Your task to perform on an android device: remove spam from my inbox in the gmail app Image 0: 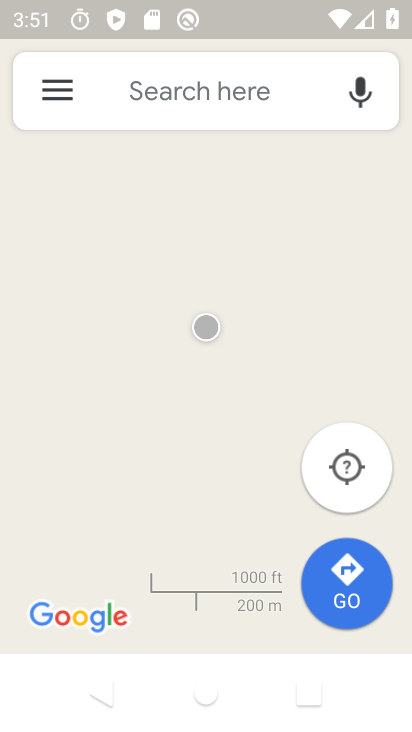
Step 0: press home button
Your task to perform on an android device: remove spam from my inbox in the gmail app Image 1: 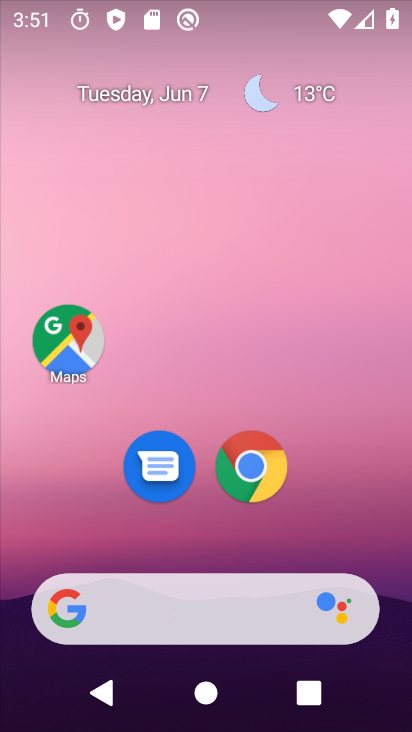
Step 1: drag from (387, 554) to (326, 188)
Your task to perform on an android device: remove spam from my inbox in the gmail app Image 2: 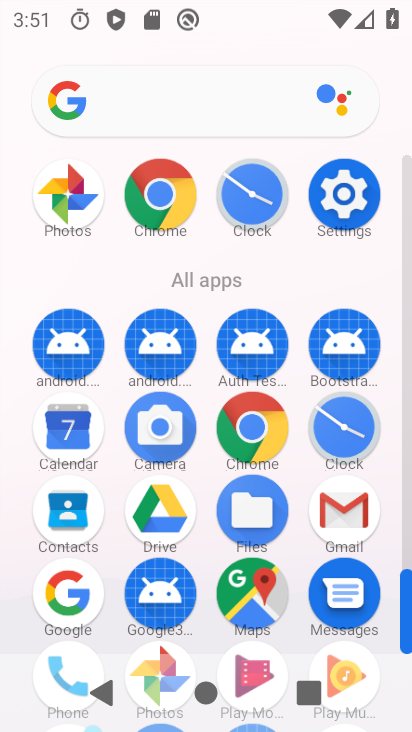
Step 2: click (343, 497)
Your task to perform on an android device: remove spam from my inbox in the gmail app Image 3: 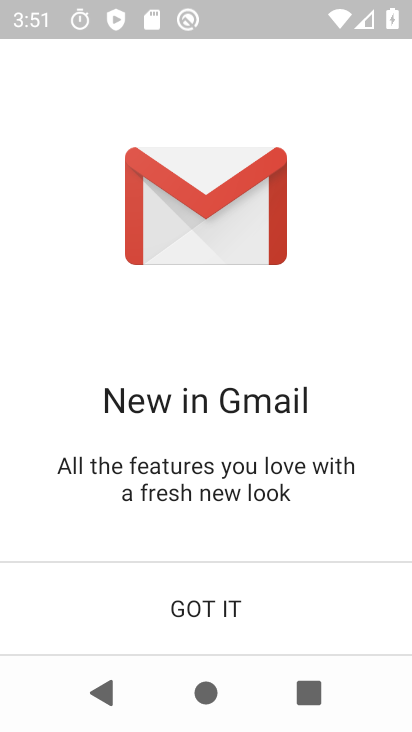
Step 3: click (232, 608)
Your task to perform on an android device: remove spam from my inbox in the gmail app Image 4: 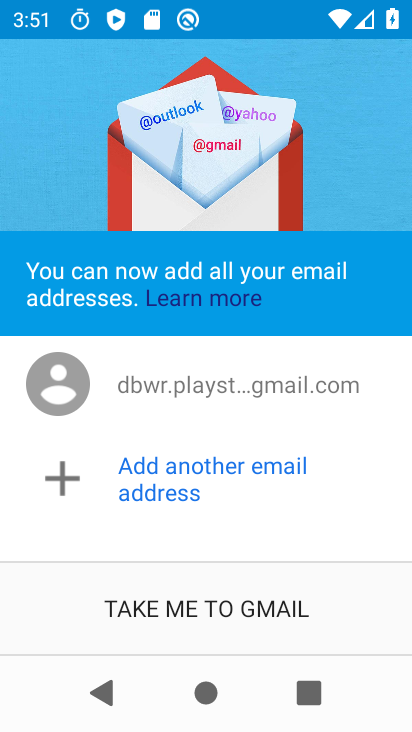
Step 4: click (244, 612)
Your task to perform on an android device: remove spam from my inbox in the gmail app Image 5: 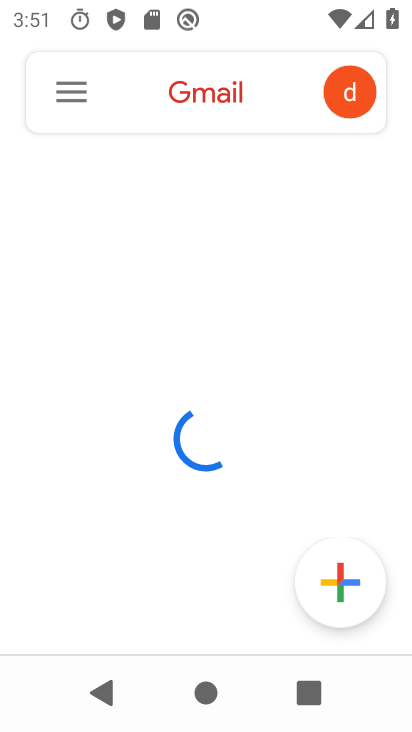
Step 5: click (78, 82)
Your task to perform on an android device: remove spam from my inbox in the gmail app Image 6: 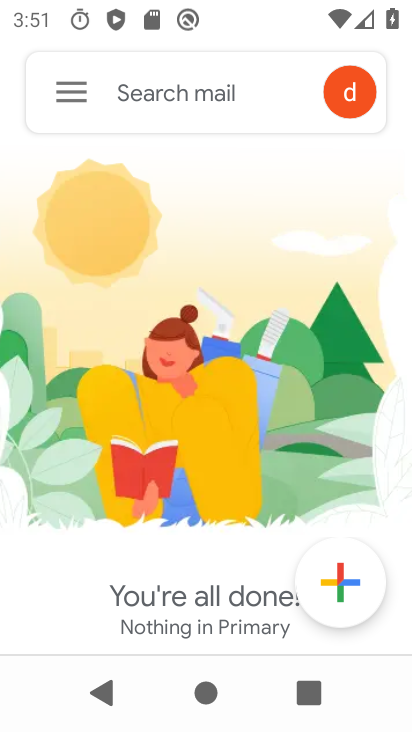
Step 6: click (68, 110)
Your task to perform on an android device: remove spam from my inbox in the gmail app Image 7: 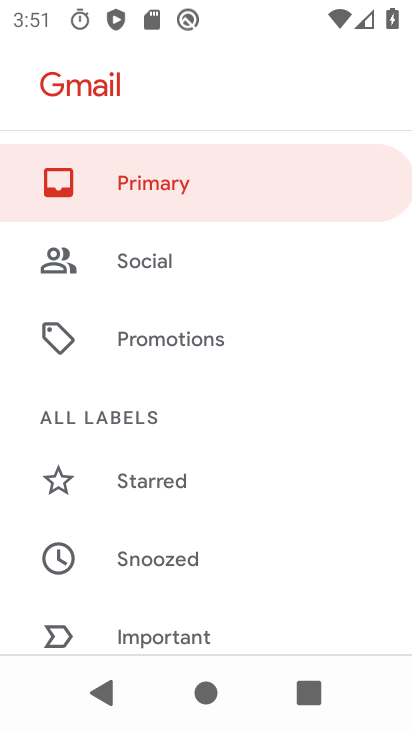
Step 7: drag from (221, 599) to (185, 74)
Your task to perform on an android device: remove spam from my inbox in the gmail app Image 8: 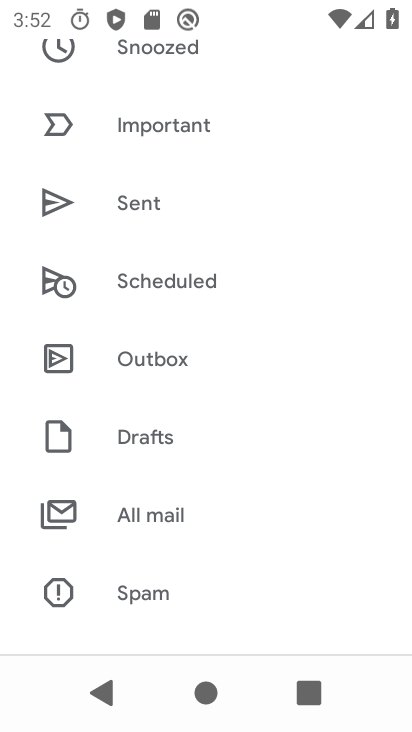
Step 8: click (186, 598)
Your task to perform on an android device: remove spam from my inbox in the gmail app Image 9: 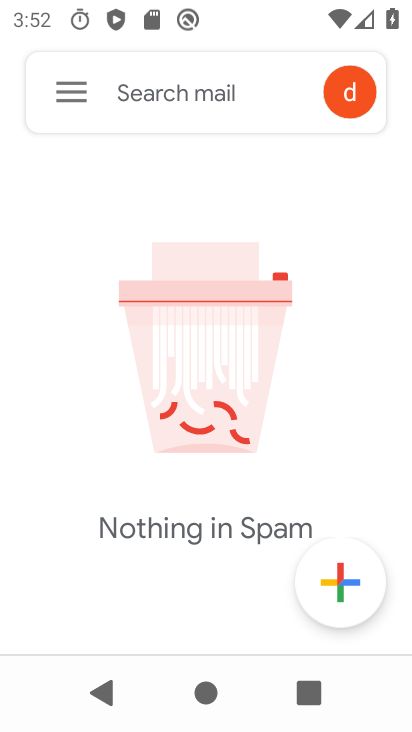
Step 9: task complete